Your task to perform on an android device: Open wifi settings Image 0: 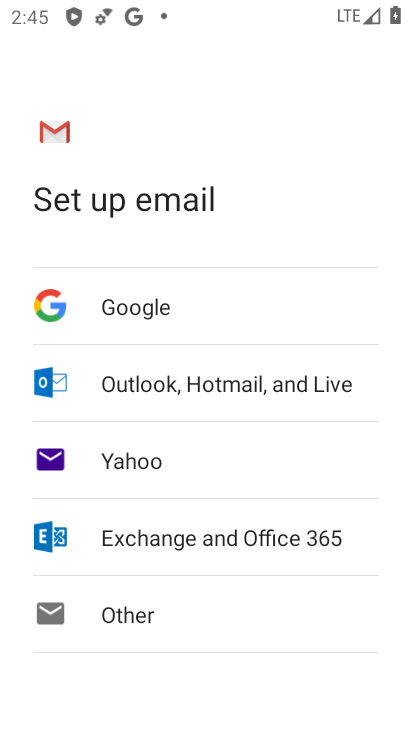
Step 0: press home button
Your task to perform on an android device: Open wifi settings Image 1: 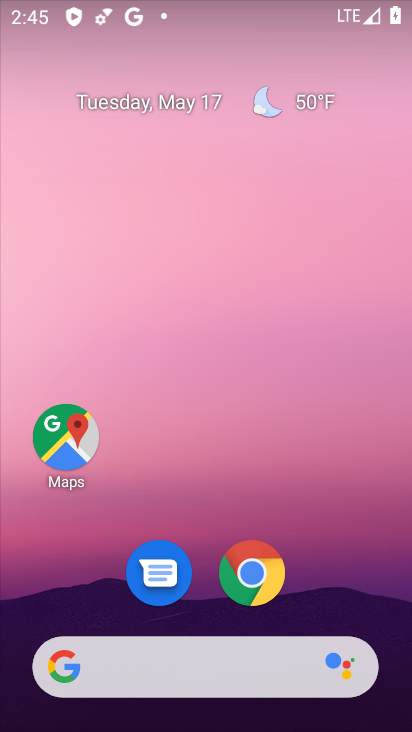
Step 1: drag from (349, 451) to (366, 157)
Your task to perform on an android device: Open wifi settings Image 2: 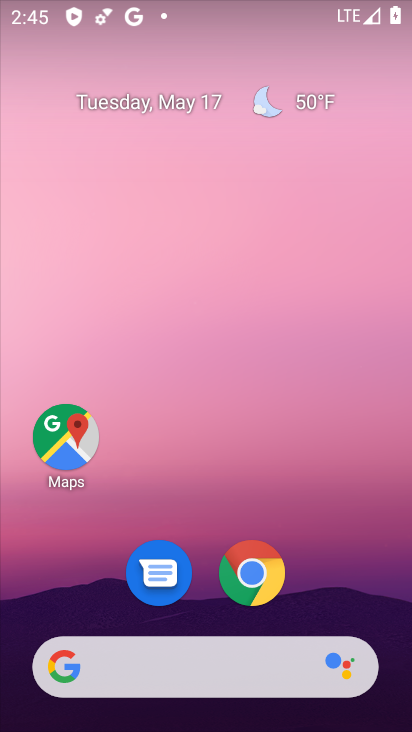
Step 2: drag from (299, 447) to (310, 110)
Your task to perform on an android device: Open wifi settings Image 3: 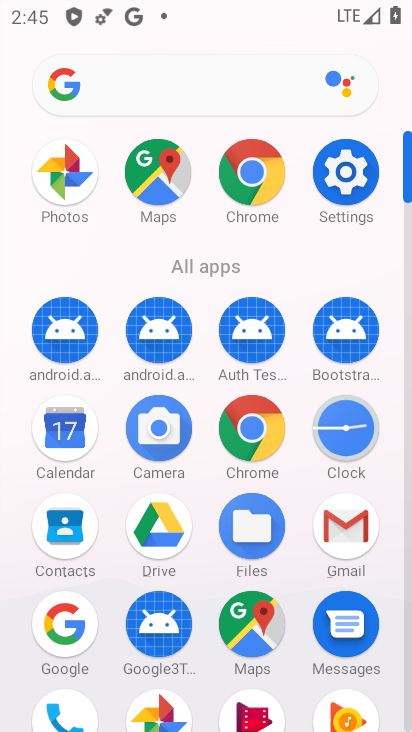
Step 3: click (331, 167)
Your task to perform on an android device: Open wifi settings Image 4: 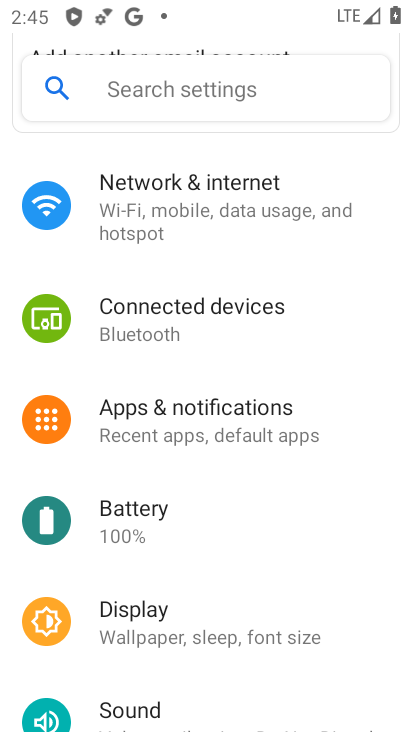
Step 4: click (159, 195)
Your task to perform on an android device: Open wifi settings Image 5: 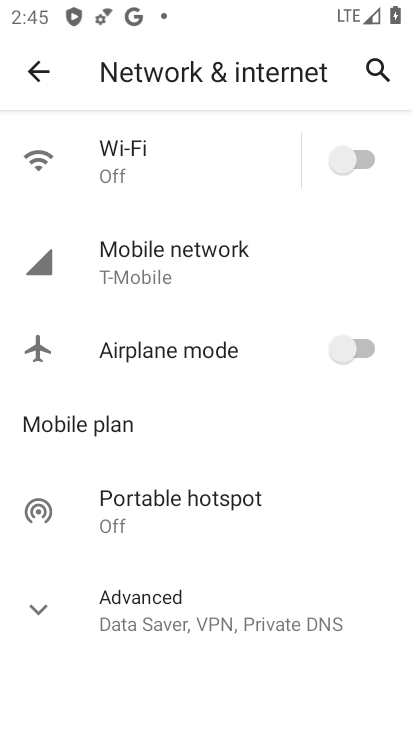
Step 5: click (214, 153)
Your task to perform on an android device: Open wifi settings Image 6: 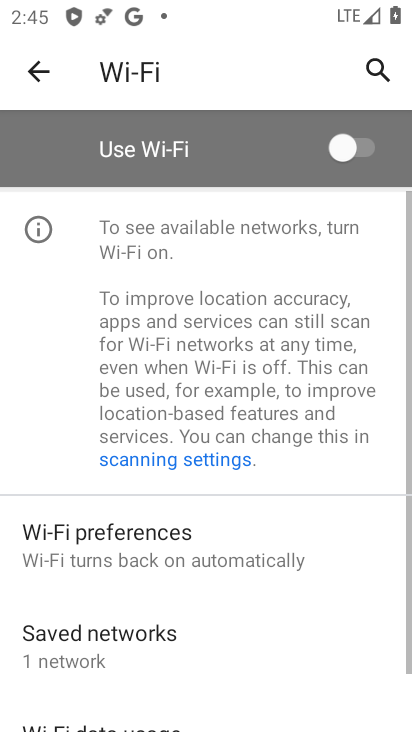
Step 6: click (380, 146)
Your task to perform on an android device: Open wifi settings Image 7: 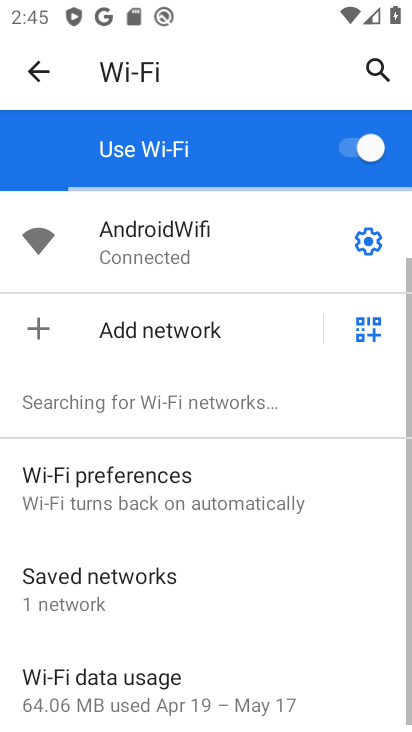
Step 7: click (371, 250)
Your task to perform on an android device: Open wifi settings Image 8: 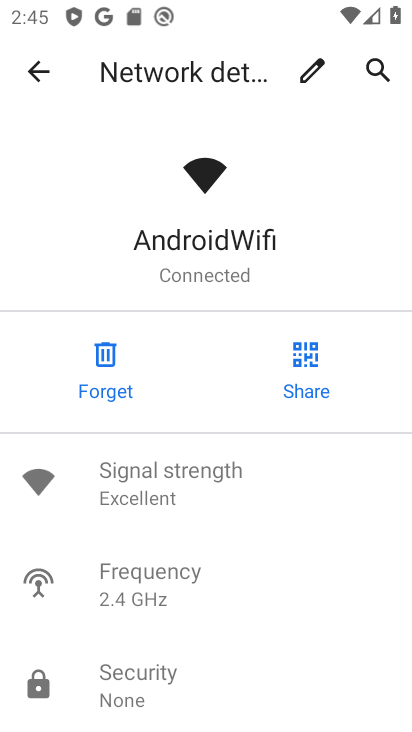
Step 8: task complete